Your task to perform on an android device: change alarm snooze length Image 0: 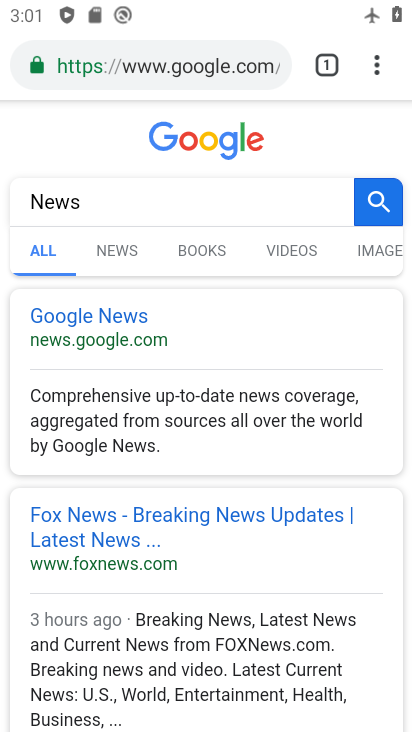
Step 0: click (56, 458)
Your task to perform on an android device: change alarm snooze length Image 1: 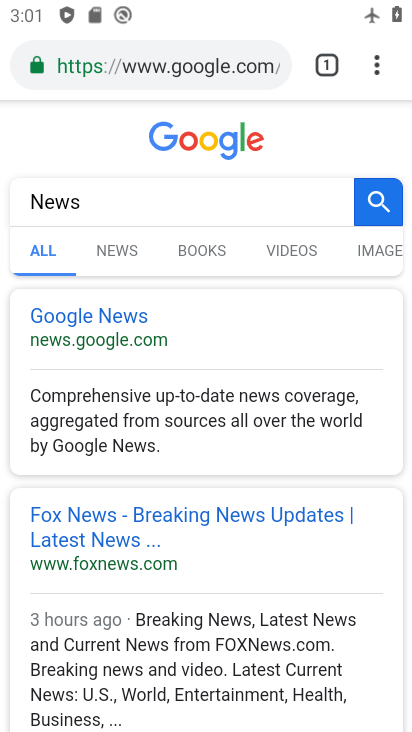
Step 1: press home button
Your task to perform on an android device: change alarm snooze length Image 2: 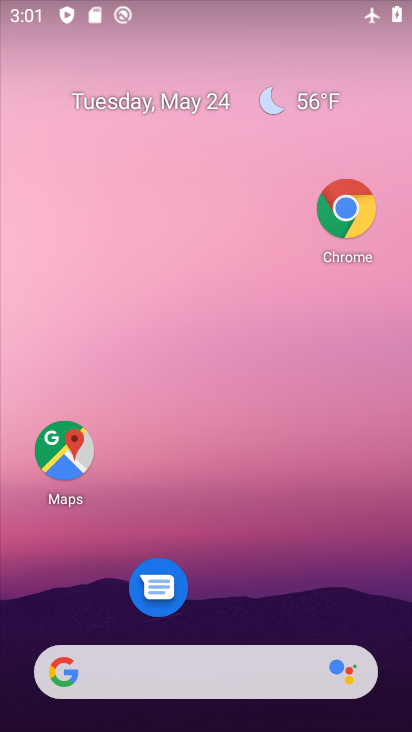
Step 2: drag from (232, 644) to (257, 284)
Your task to perform on an android device: change alarm snooze length Image 3: 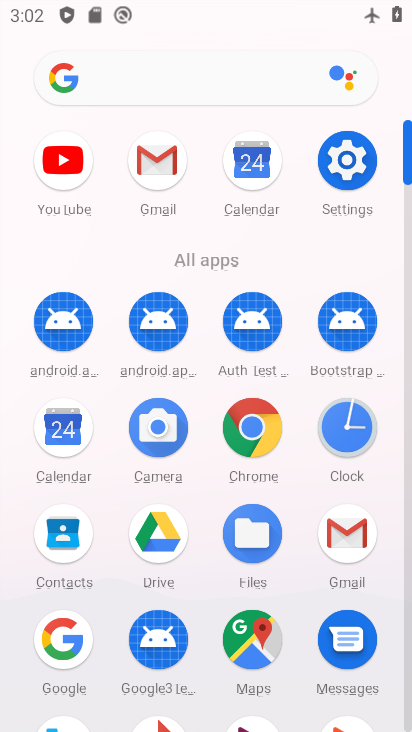
Step 3: click (355, 444)
Your task to perform on an android device: change alarm snooze length Image 4: 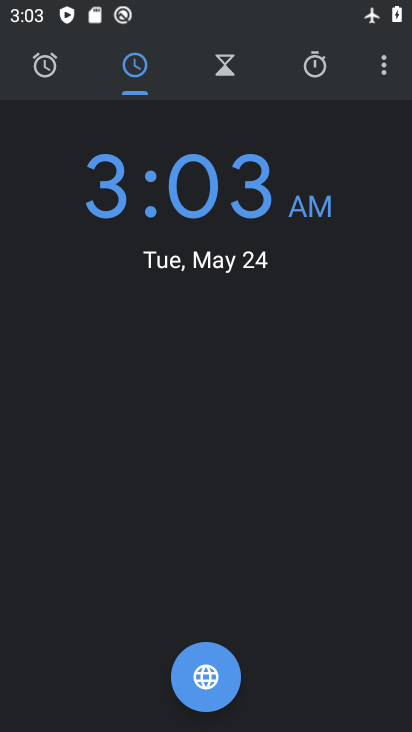
Step 4: click (388, 64)
Your task to perform on an android device: change alarm snooze length Image 5: 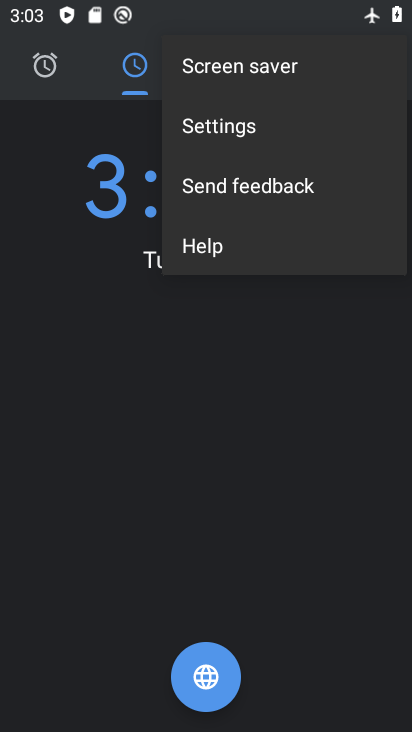
Step 5: click (252, 126)
Your task to perform on an android device: change alarm snooze length Image 6: 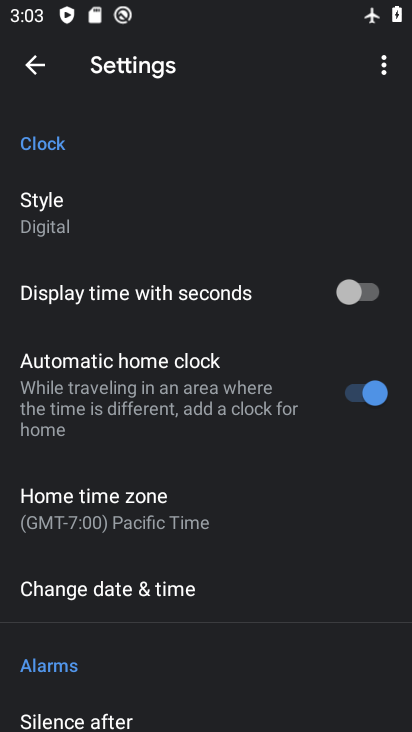
Step 6: drag from (107, 667) to (143, 328)
Your task to perform on an android device: change alarm snooze length Image 7: 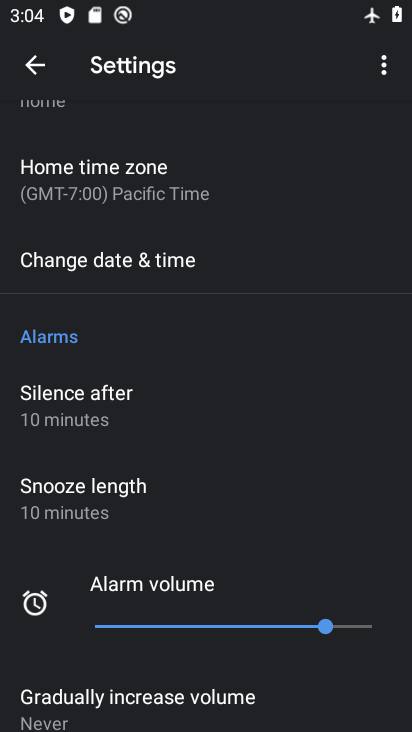
Step 7: click (114, 506)
Your task to perform on an android device: change alarm snooze length Image 8: 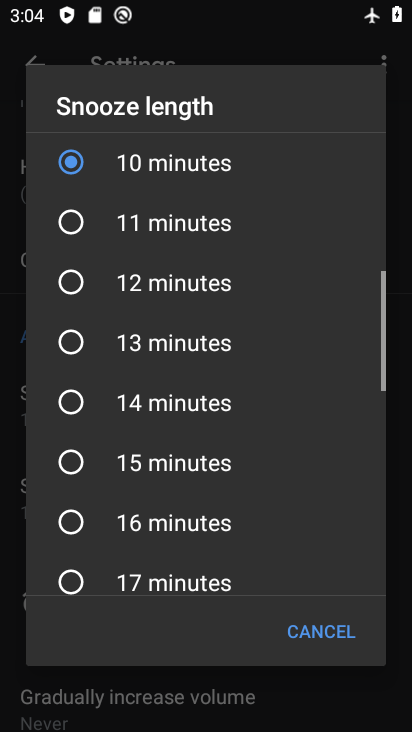
Step 8: click (127, 213)
Your task to perform on an android device: change alarm snooze length Image 9: 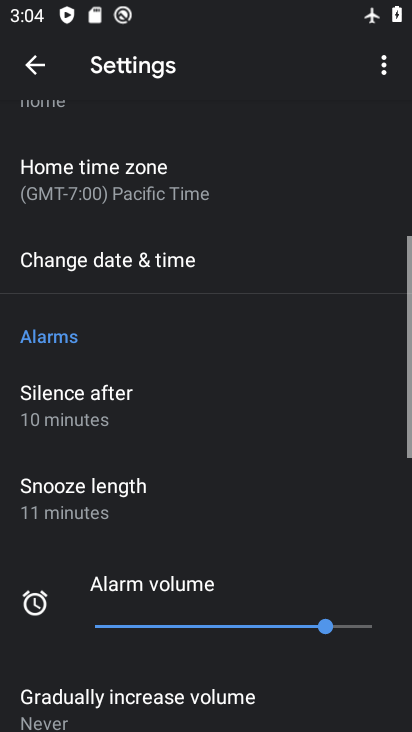
Step 9: task complete